Your task to perform on an android device: Is it going to rain today? Image 0: 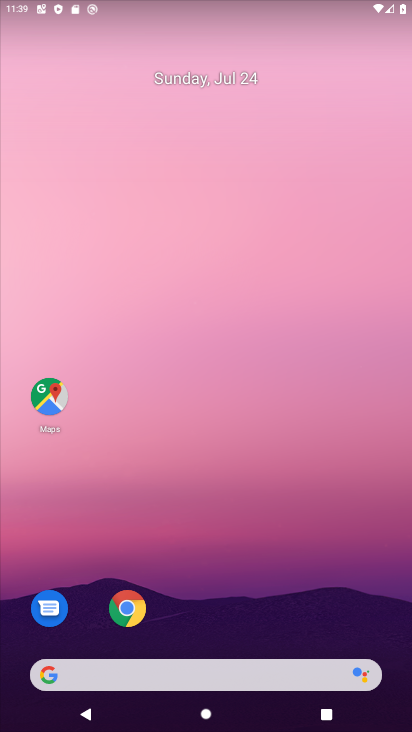
Step 0: click (139, 670)
Your task to perform on an android device: Is it going to rain today? Image 1: 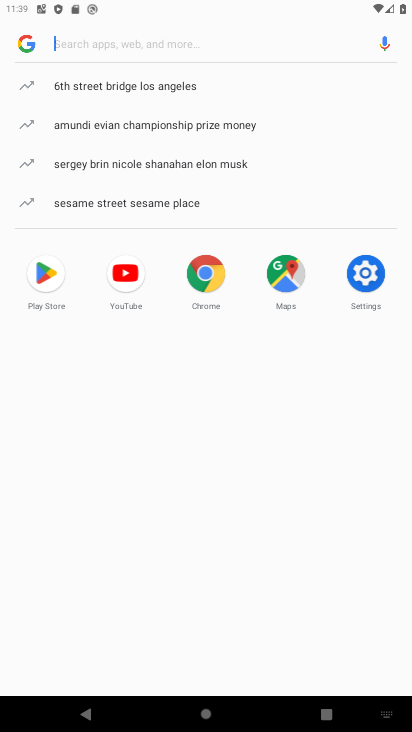
Step 1: type "Is it going to rain today?"
Your task to perform on an android device: Is it going to rain today? Image 2: 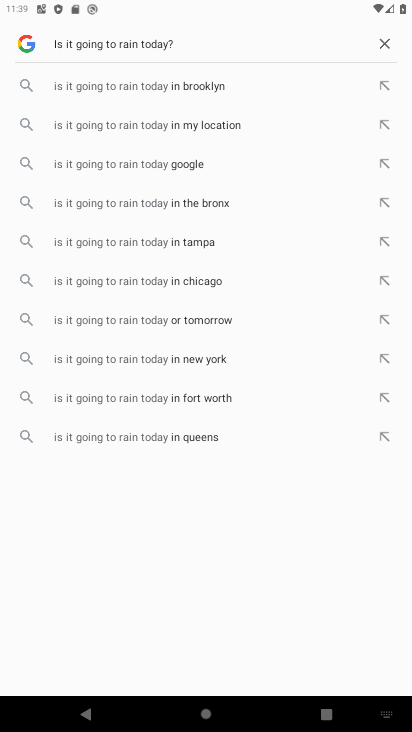
Step 2: click (139, 164)
Your task to perform on an android device: Is it going to rain today? Image 3: 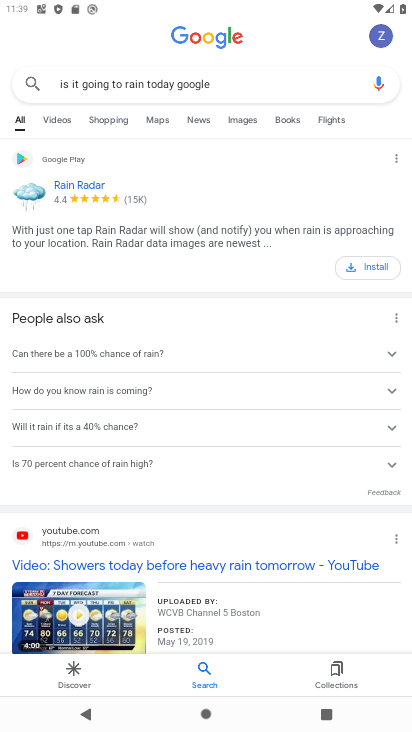
Step 3: drag from (179, 325) to (168, 124)
Your task to perform on an android device: Is it going to rain today? Image 4: 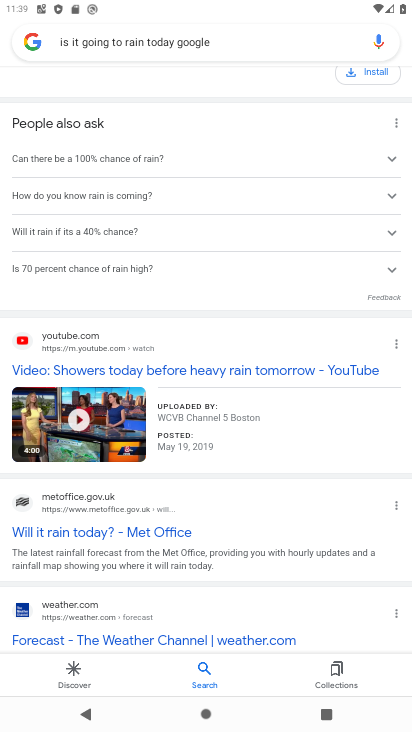
Step 4: drag from (179, 442) to (196, 223)
Your task to perform on an android device: Is it going to rain today? Image 5: 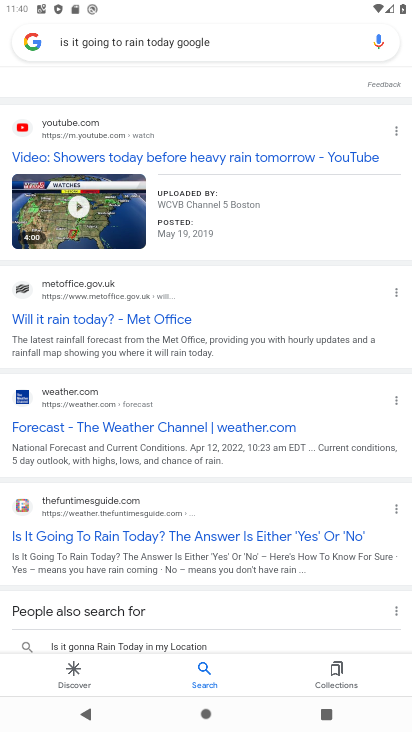
Step 5: click (126, 430)
Your task to perform on an android device: Is it going to rain today? Image 6: 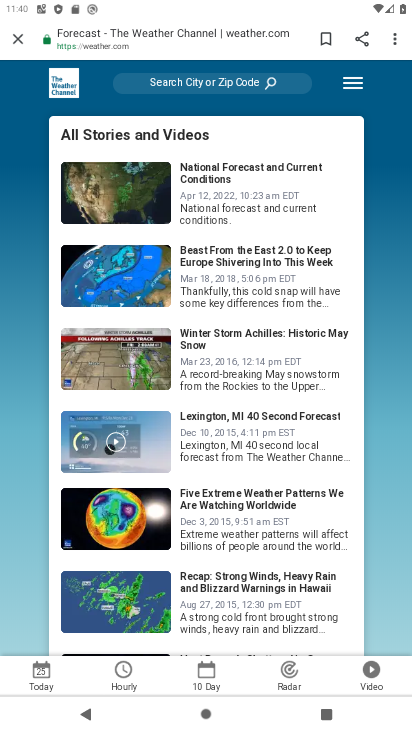
Step 6: drag from (244, 566) to (251, 448)
Your task to perform on an android device: Is it going to rain today? Image 7: 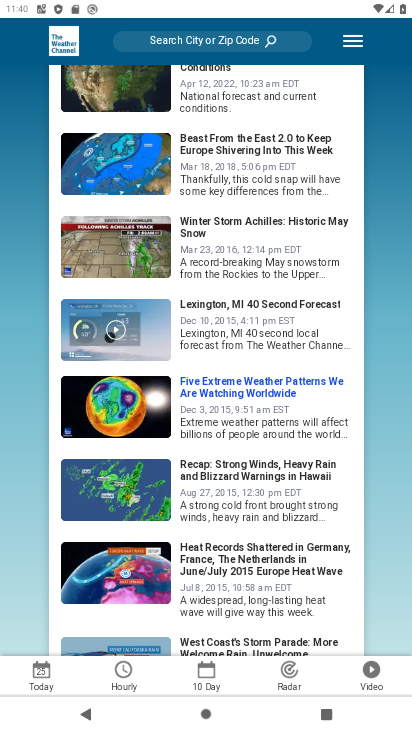
Step 7: click (43, 684)
Your task to perform on an android device: Is it going to rain today? Image 8: 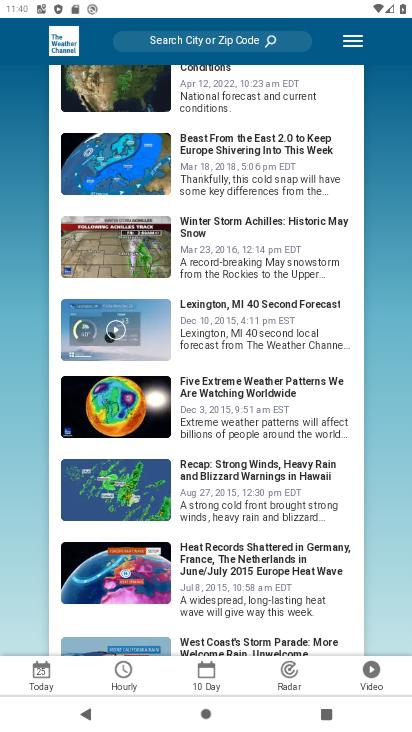
Step 8: click (39, 672)
Your task to perform on an android device: Is it going to rain today? Image 9: 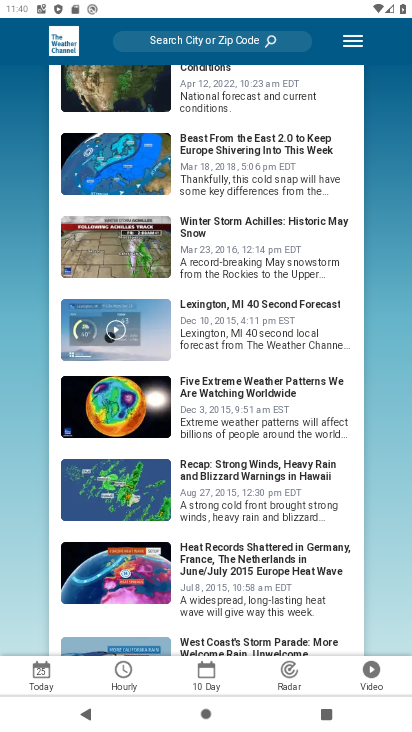
Step 9: drag from (231, 267) to (261, 533)
Your task to perform on an android device: Is it going to rain today? Image 10: 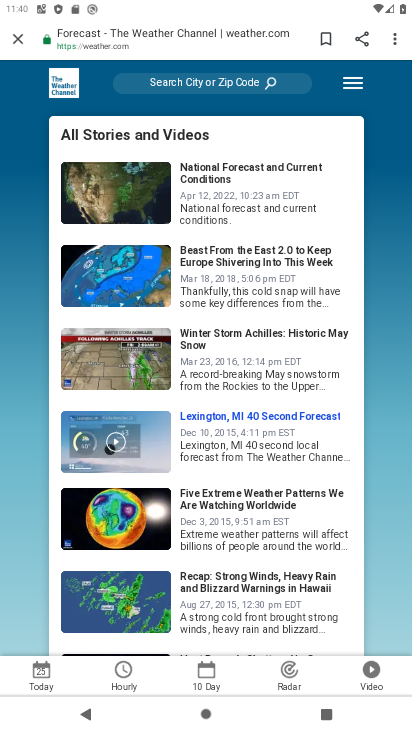
Step 10: click (24, 39)
Your task to perform on an android device: Is it going to rain today? Image 11: 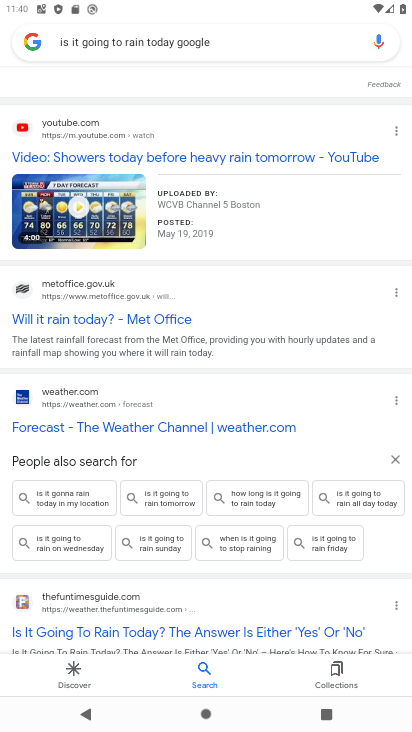
Step 11: drag from (127, 528) to (134, 361)
Your task to perform on an android device: Is it going to rain today? Image 12: 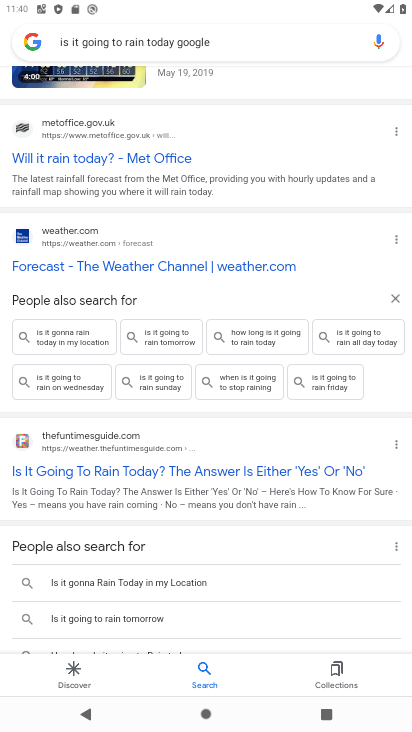
Step 12: drag from (179, 594) to (169, 420)
Your task to perform on an android device: Is it going to rain today? Image 13: 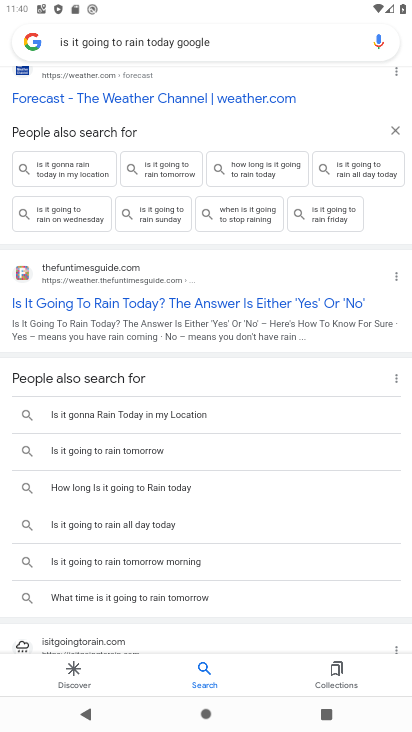
Step 13: click (163, 526)
Your task to perform on an android device: Is it going to rain today? Image 14: 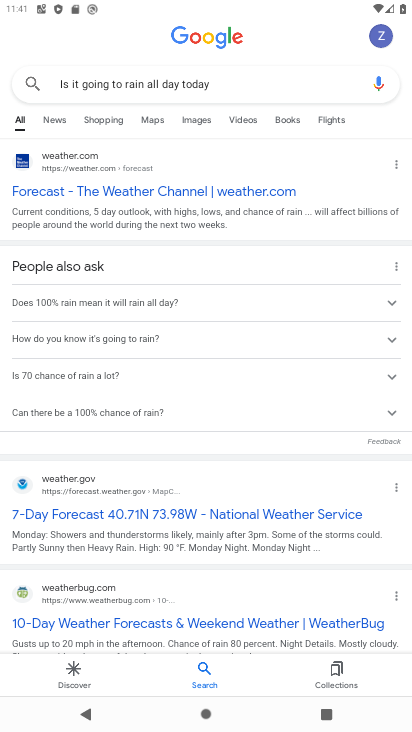
Step 14: task complete